Your task to perform on an android device: toggle show notifications on the lock screen Image 0: 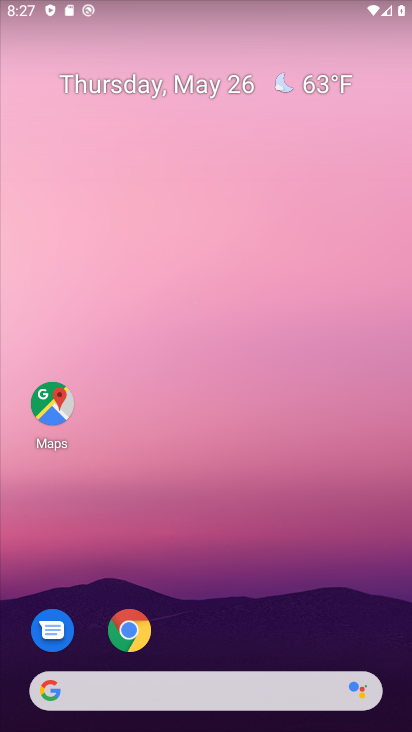
Step 0: drag from (248, 699) to (140, 0)
Your task to perform on an android device: toggle show notifications on the lock screen Image 1: 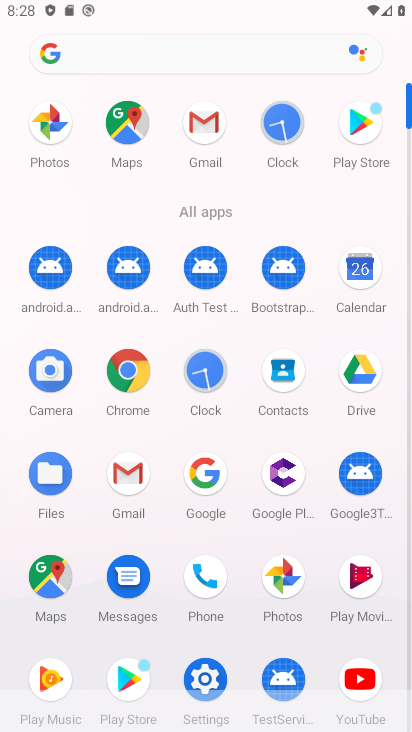
Step 1: click (202, 379)
Your task to perform on an android device: toggle show notifications on the lock screen Image 2: 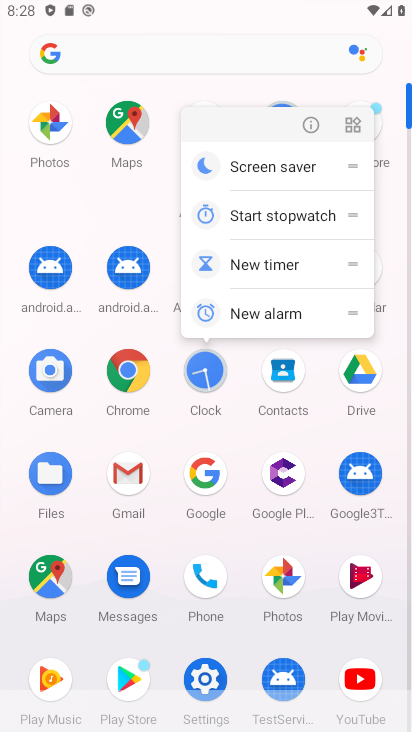
Step 2: click (204, 378)
Your task to perform on an android device: toggle show notifications on the lock screen Image 3: 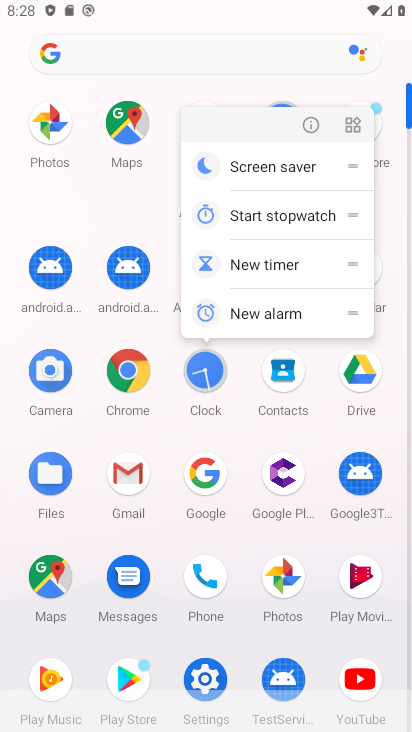
Step 3: click (205, 372)
Your task to perform on an android device: toggle show notifications on the lock screen Image 4: 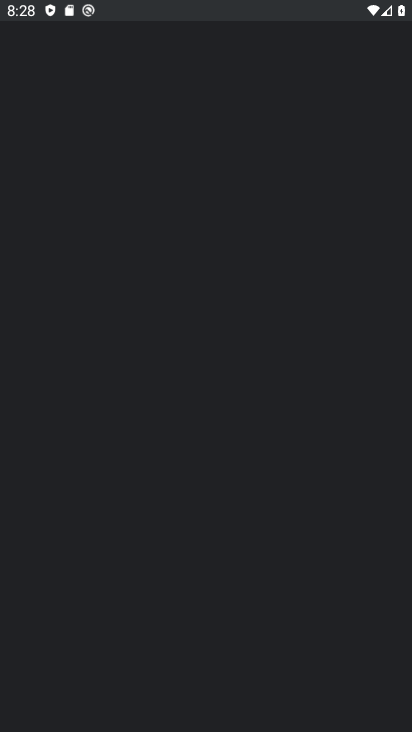
Step 4: click (212, 375)
Your task to perform on an android device: toggle show notifications on the lock screen Image 5: 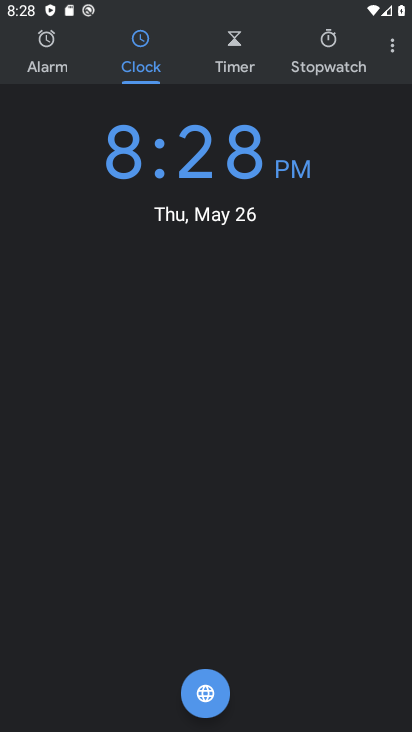
Step 5: press back button
Your task to perform on an android device: toggle show notifications on the lock screen Image 6: 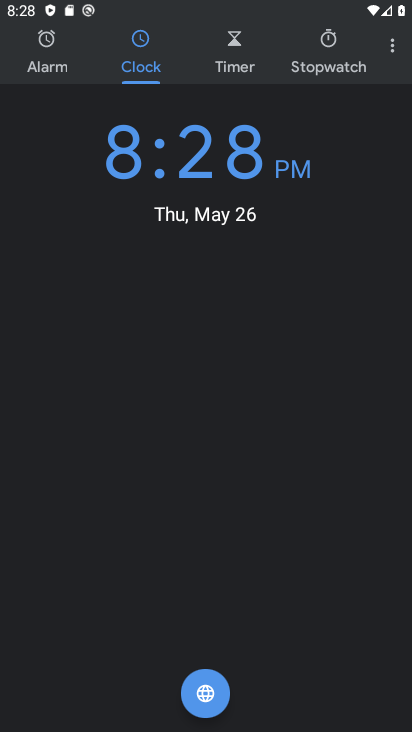
Step 6: press back button
Your task to perform on an android device: toggle show notifications on the lock screen Image 7: 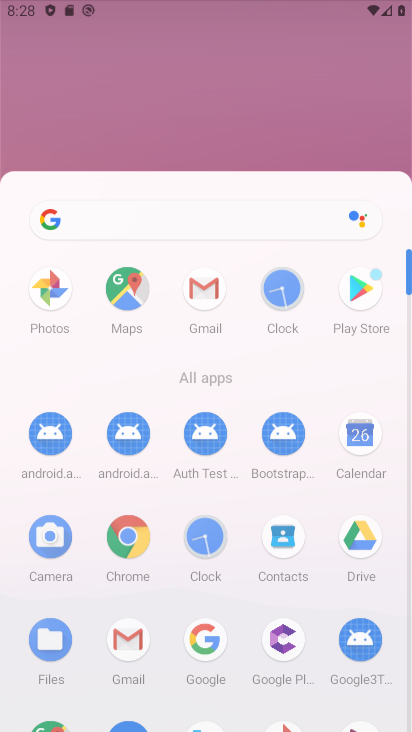
Step 7: press back button
Your task to perform on an android device: toggle show notifications on the lock screen Image 8: 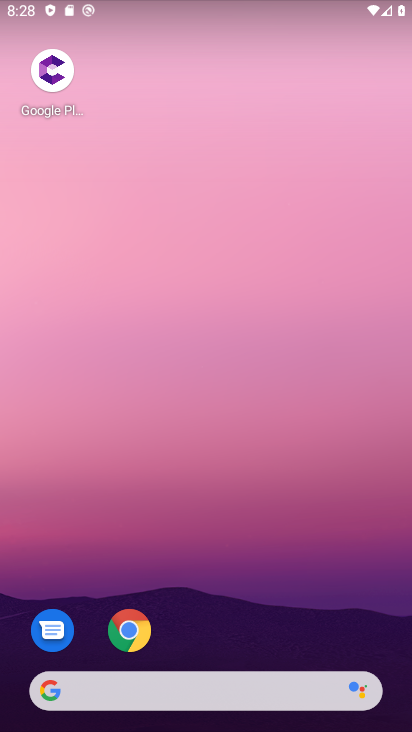
Step 8: press home button
Your task to perform on an android device: toggle show notifications on the lock screen Image 9: 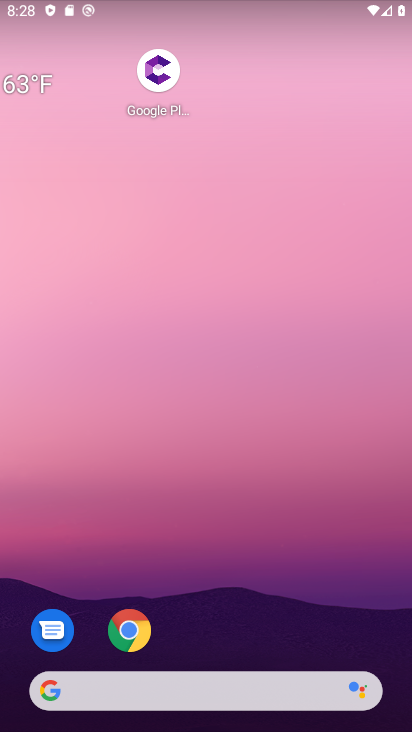
Step 9: press home button
Your task to perform on an android device: toggle show notifications on the lock screen Image 10: 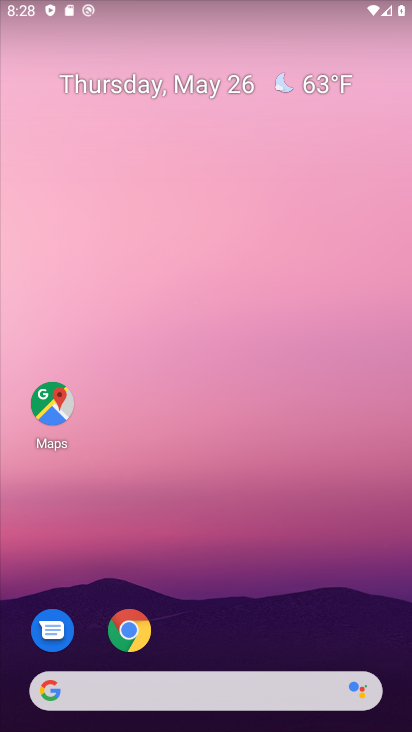
Step 10: press home button
Your task to perform on an android device: toggle show notifications on the lock screen Image 11: 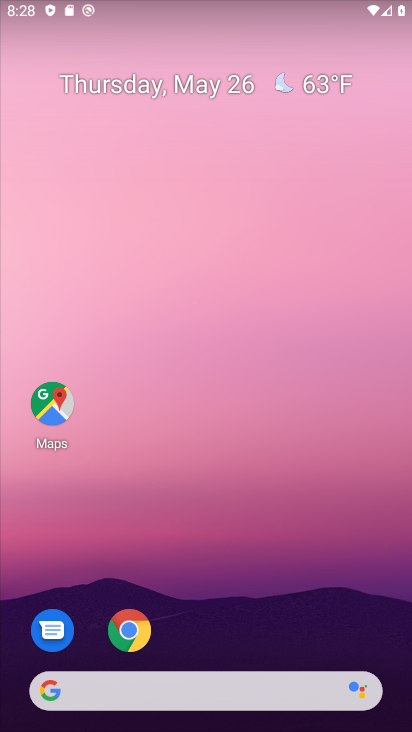
Step 11: click (152, 34)
Your task to perform on an android device: toggle show notifications on the lock screen Image 12: 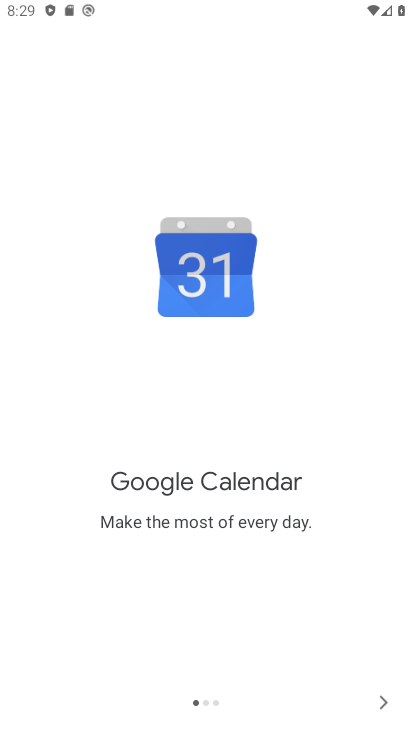
Step 12: click (388, 704)
Your task to perform on an android device: toggle show notifications on the lock screen Image 13: 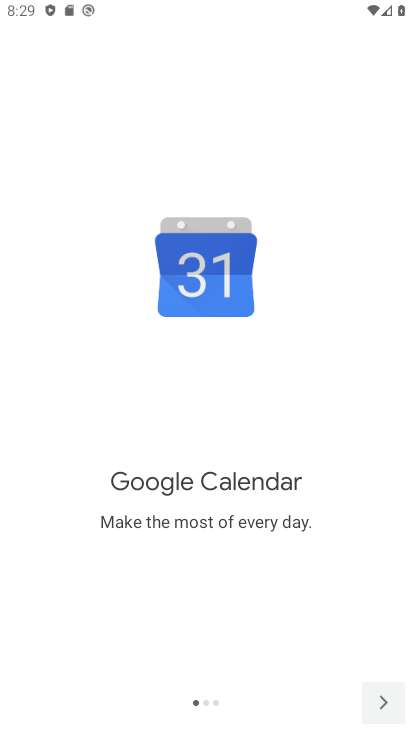
Step 13: click (388, 704)
Your task to perform on an android device: toggle show notifications on the lock screen Image 14: 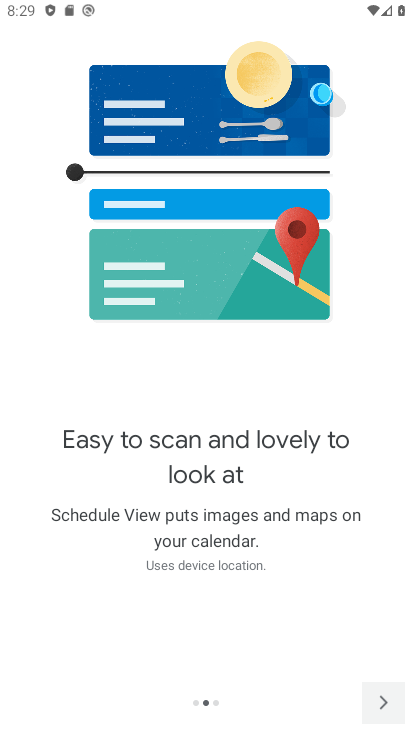
Step 14: click (389, 703)
Your task to perform on an android device: toggle show notifications on the lock screen Image 15: 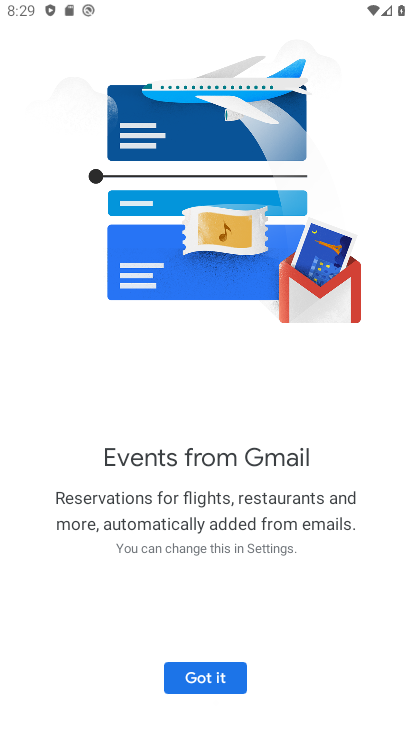
Step 15: click (389, 703)
Your task to perform on an android device: toggle show notifications on the lock screen Image 16: 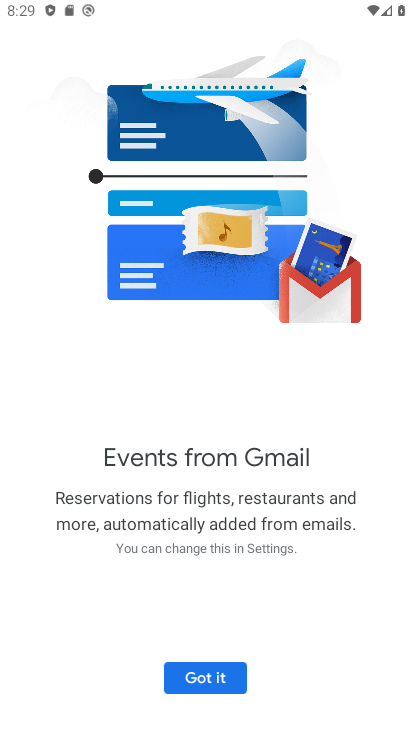
Step 16: click (389, 703)
Your task to perform on an android device: toggle show notifications on the lock screen Image 17: 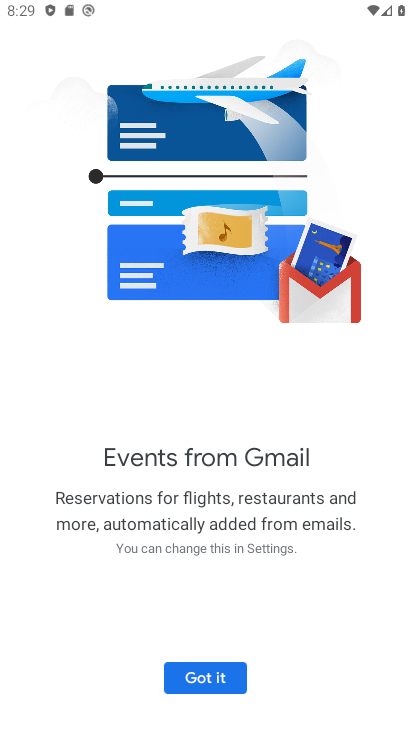
Step 17: click (382, 697)
Your task to perform on an android device: toggle show notifications on the lock screen Image 18: 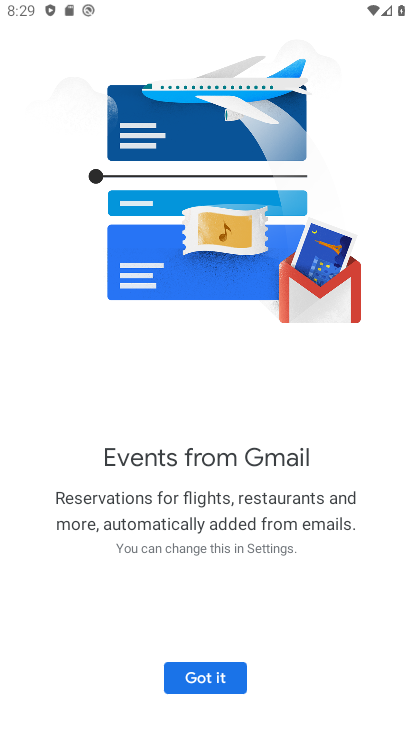
Step 18: click (194, 680)
Your task to perform on an android device: toggle show notifications on the lock screen Image 19: 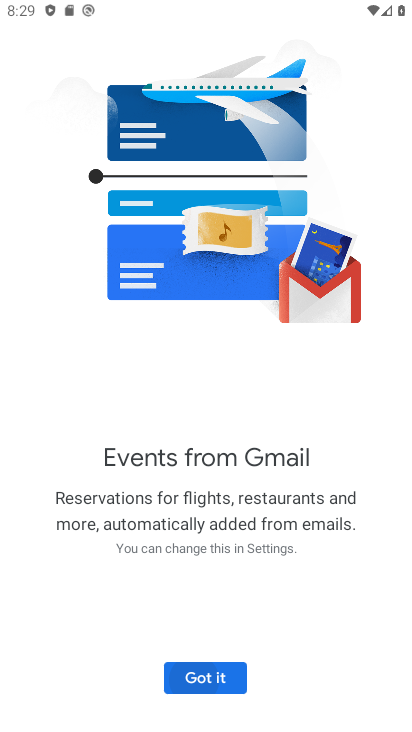
Step 19: click (193, 676)
Your task to perform on an android device: toggle show notifications on the lock screen Image 20: 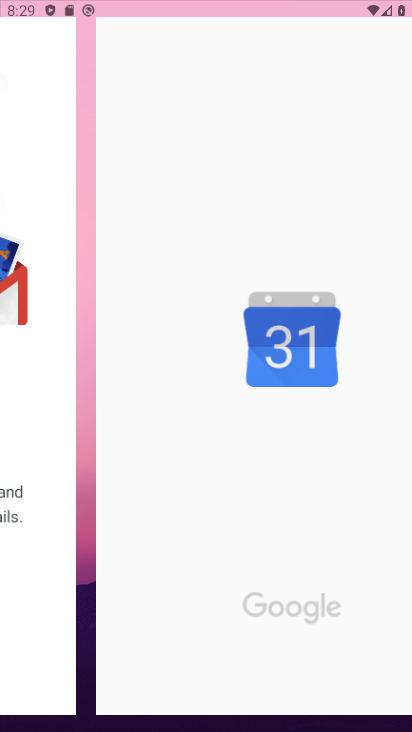
Step 20: click (220, 684)
Your task to perform on an android device: toggle show notifications on the lock screen Image 21: 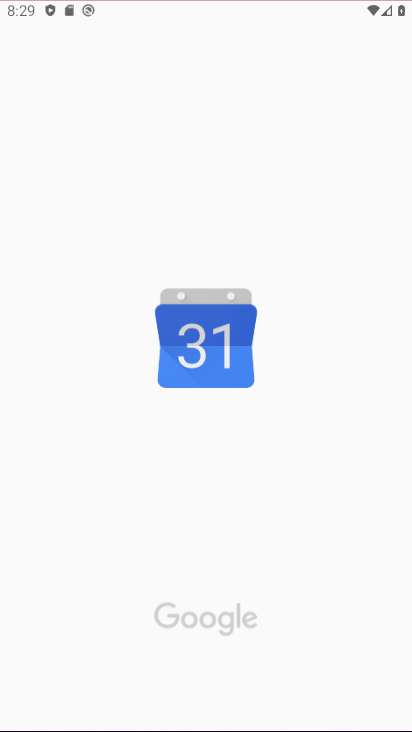
Step 21: click (223, 684)
Your task to perform on an android device: toggle show notifications on the lock screen Image 22: 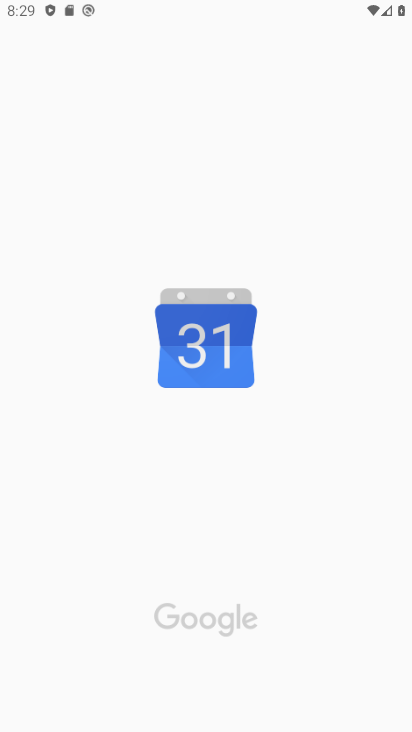
Step 22: click (223, 683)
Your task to perform on an android device: toggle show notifications on the lock screen Image 23: 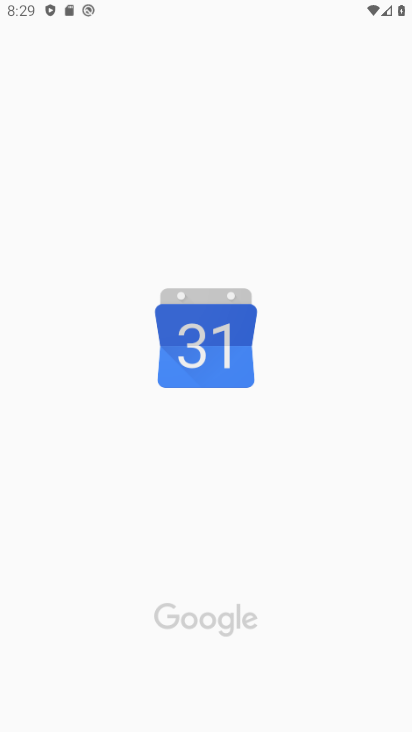
Step 23: click (223, 678)
Your task to perform on an android device: toggle show notifications on the lock screen Image 24: 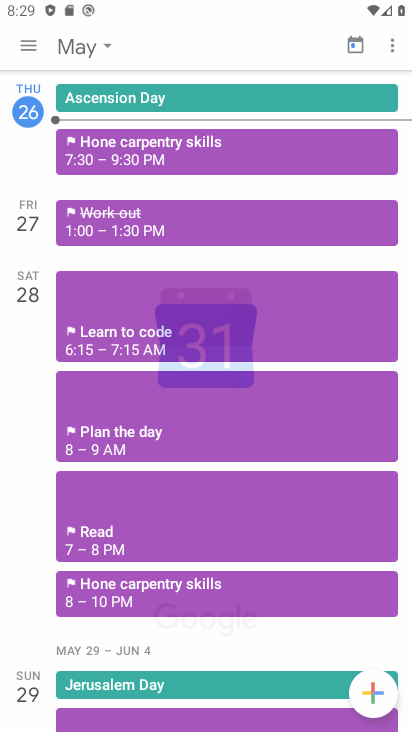
Step 24: click (223, 677)
Your task to perform on an android device: toggle show notifications on the lock screen Image 25: 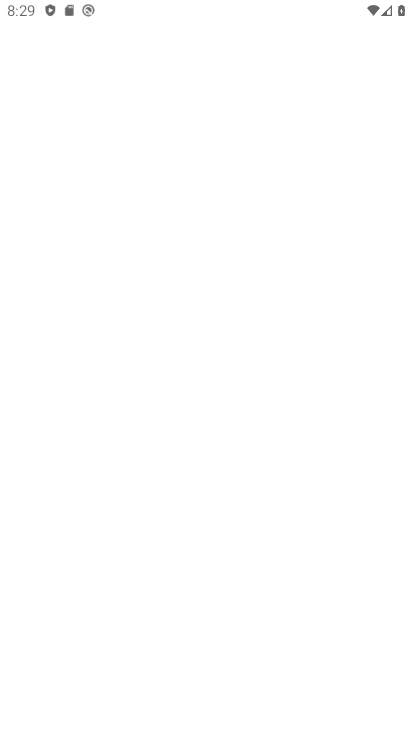
Step 25: press home button
Your task to perform on an android device: toggle show notifications on the lock screen Image 26: 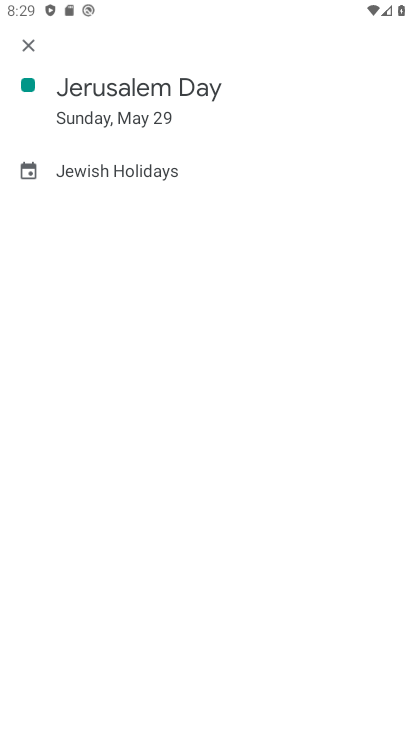
Step 26: press home button
Your task to perform on an android device: toggle show notifications on the lock screen Image 27: 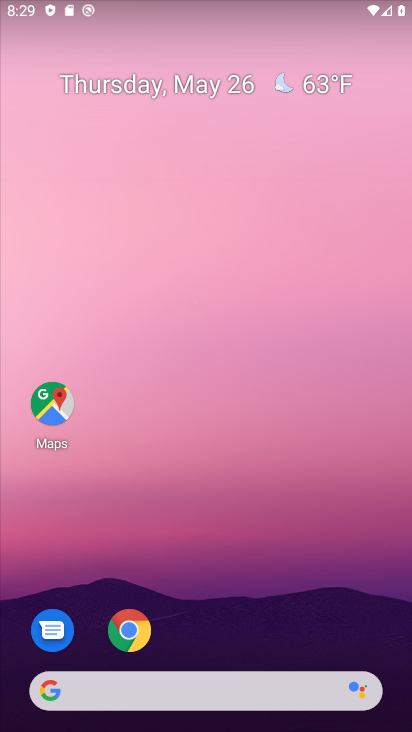
Step 27: drag from (234, 643) to (125, 125)
Your task to perform on an android device: toggle show notifications on the lock screen Image 28: 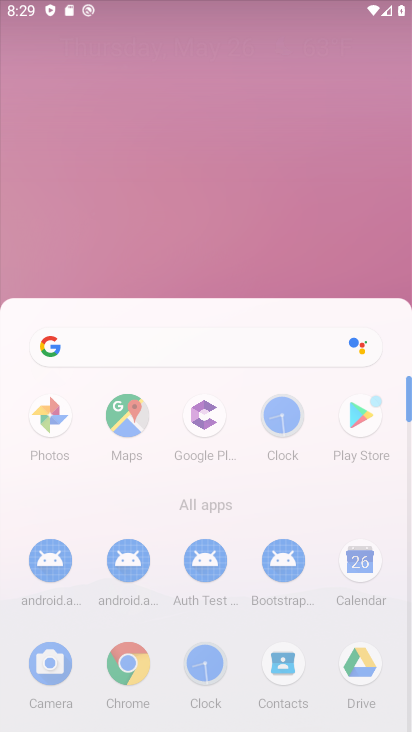
Step 28: drag from (346, 621) to (254, 101)
Your task to perform on an android device: toggle show notifications on the lock screen Image 29: 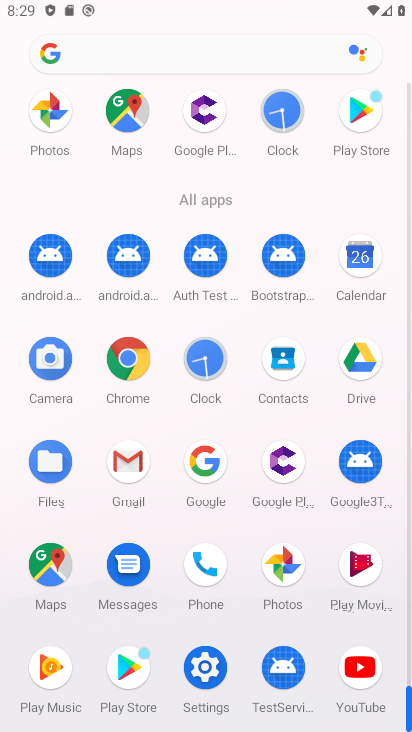
Step 29: click (210, 663)
Your task to perform on an android device: toggle show notifications on the lock screen Image 30: 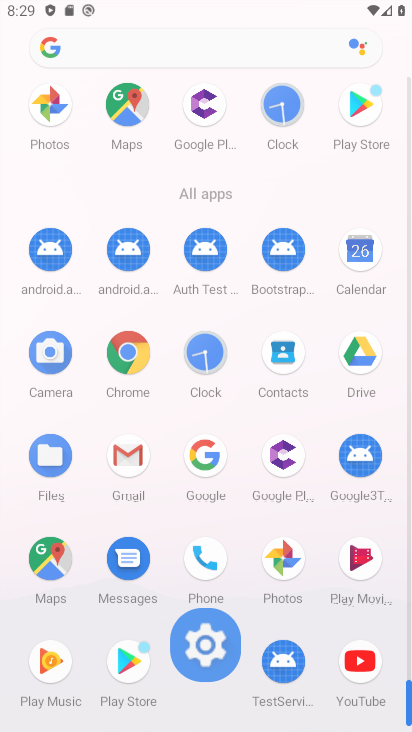
Step 30: click (190, 672)
Your task to perform on an android device: toggle show notifications on the lock screen Image 31: 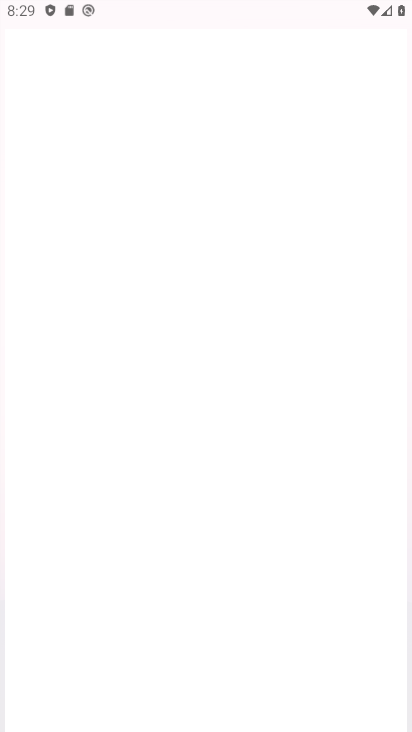
Step 31: click (191, 673)
Your task to perform on an android device: toggle show notifications on the lock screen Image 32: 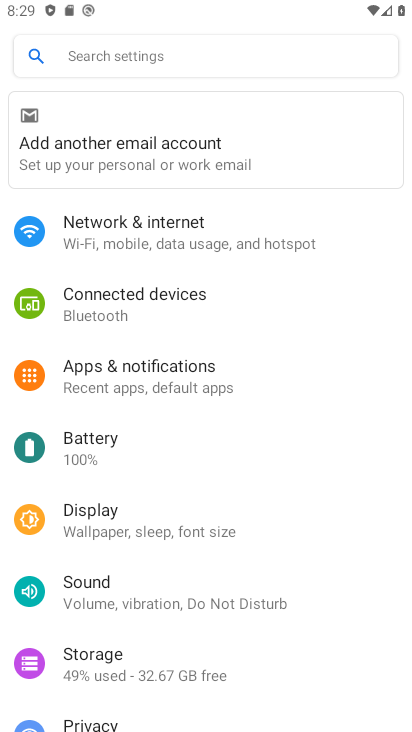
Step 32: click (121, 378)
Your task to perform on an android device: toggle show notifications on the lock screen Image 33: 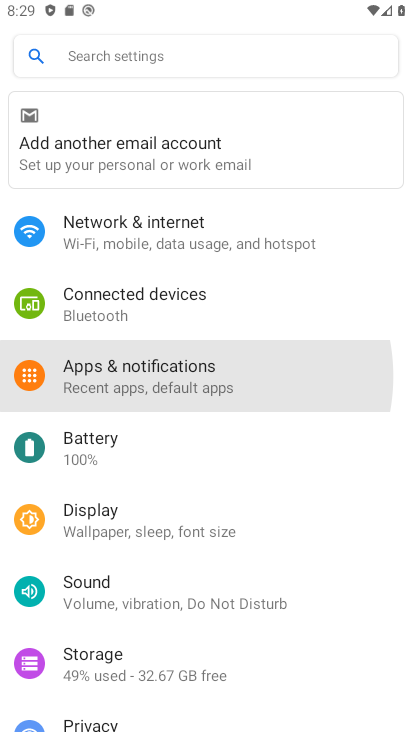
Step 33: click (123, 378)
Your task to perform on an android device: toggle show notifications on the lock screen Image 34: 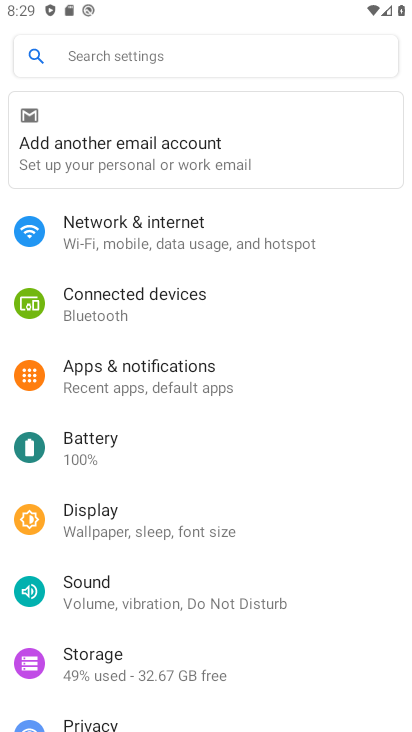
Step 34: click (124, 378)
Your task to perform on an android device: toggle show notifications on the lock screen Image 35: 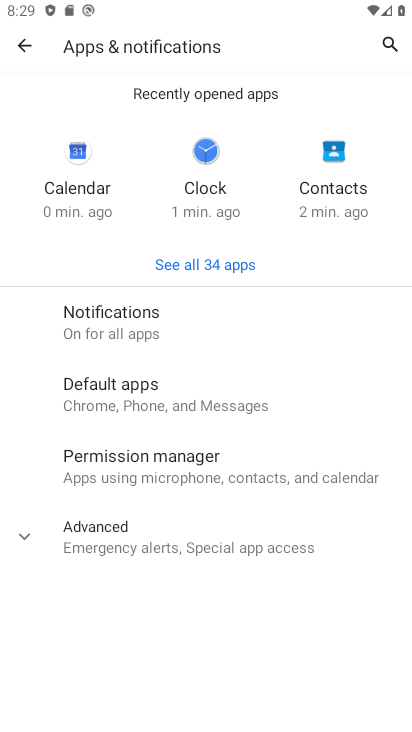
Step 35: click (103, 324)
Your task to perform on an android device: toggle show notifications on the lock screen Image 36: 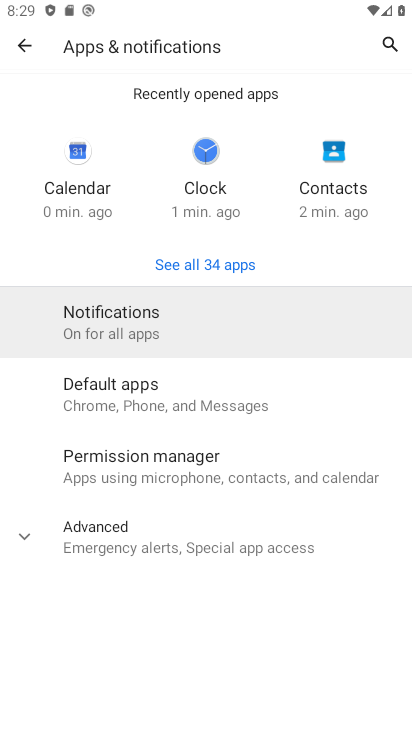
Step 36: click (104, 324)
Your task to perform on an android device: toggle show notifications on the lock screen Image 37: 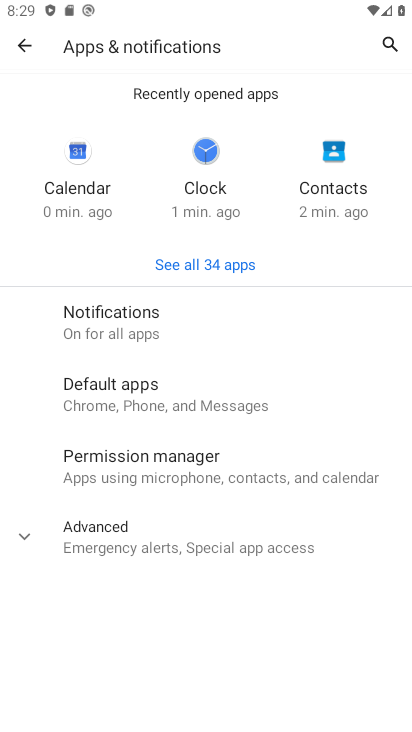
Step 37: click (109, 322)
Your task to perform on an android device: toggle show notifications on the lock screen Image 38: 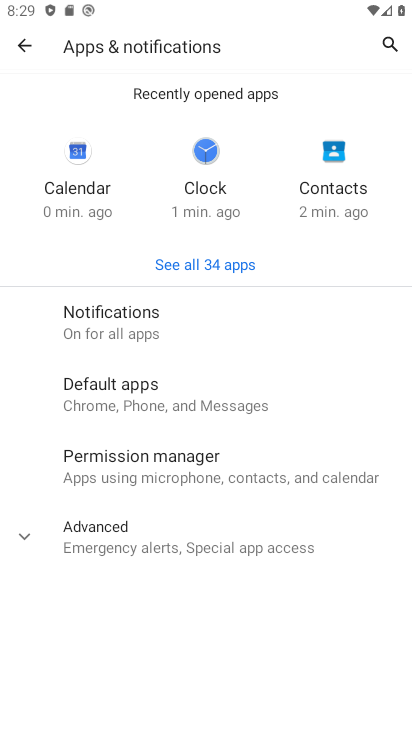
Step 38: click (111, 320)
Your task to perform on an android device: toggle show notifications on the lock screen Image 39: 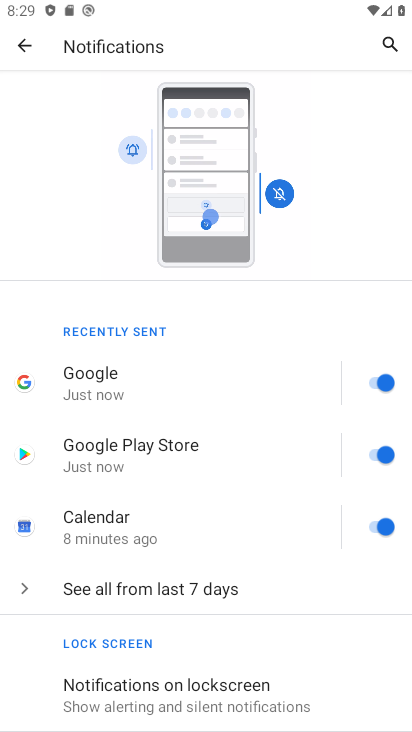
Step 39: drag from (193, 479) to (190, 143)
Your task to perform on an android device: toggle show notifications on the lock screen Image 40: 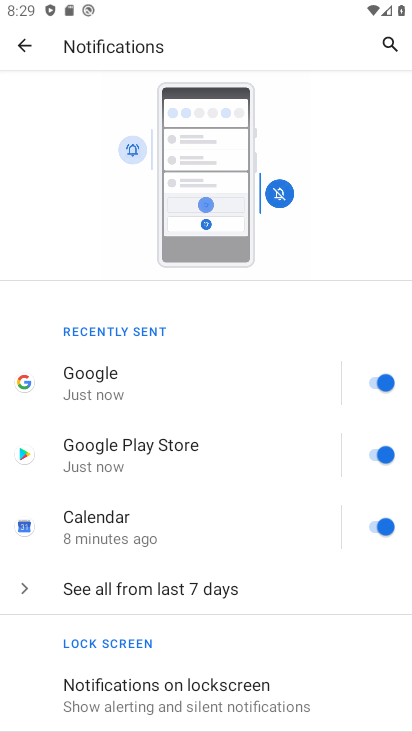
Step 40: drag from (260, 442) to (250, 230)
Your task to perform on an android device: toggle show notifications on the lock screen Image 41: 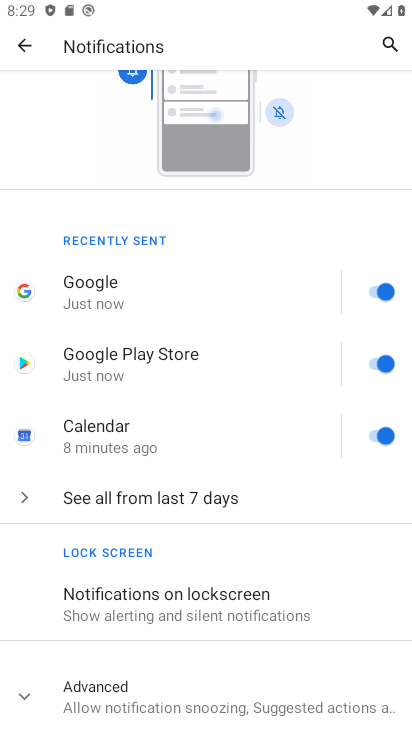
Step 41: click (184, 599)
Your task to perform on an android device: toggle show notifications on the lock screen Image 42: 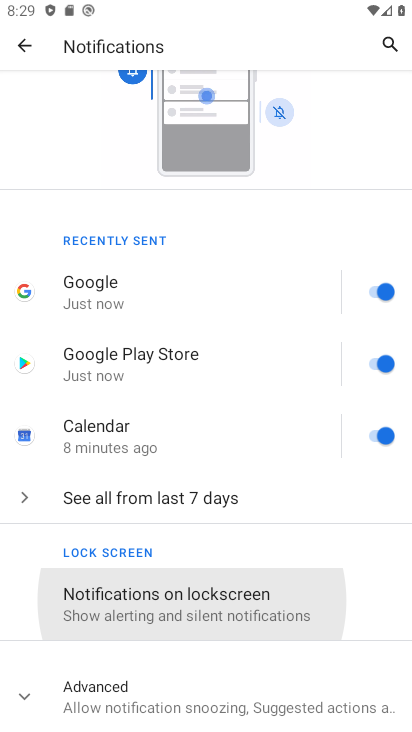
Step 42: click (184, 599)
Your task to perform on an android device: toggle show notifications on the lock screen Image 43: 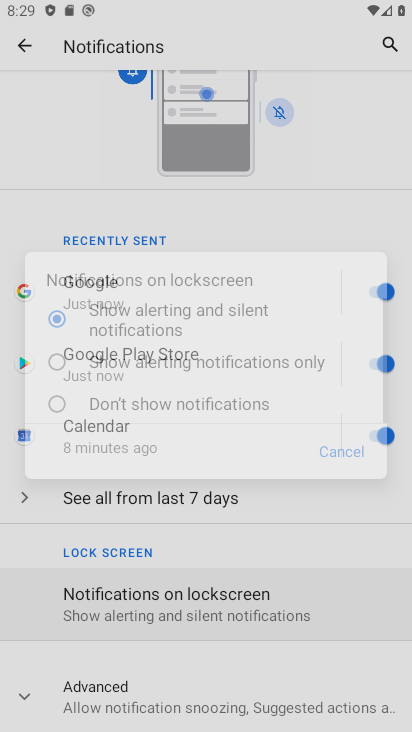
Step 43: click (184, 599)
Your task to perform on an android device: toggle show notifications on the lock screen Image 44: 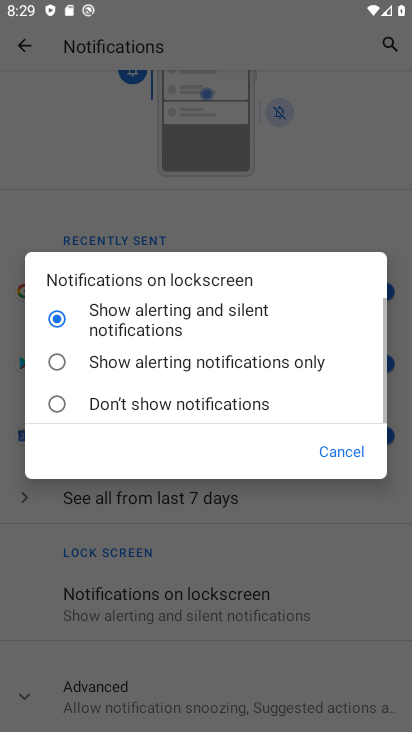
Step 44: click (184, 599)
Your task to perform on an android device: toggle show notifications on the lock screen Image 45: 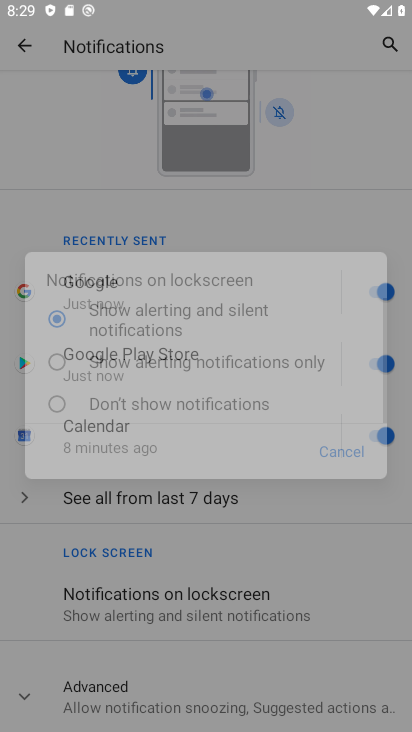
Step 45: click (184, 599)
Your task to perform on an android device: toggle show notifications on the lock screen Image 46: 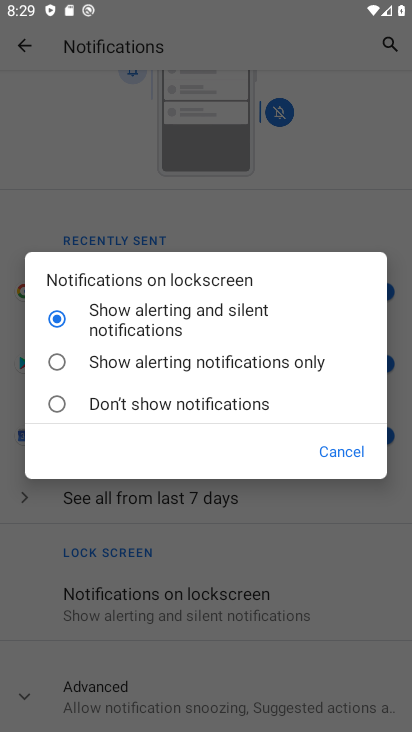
Step 46: click (60, 357)
Your task to perform on an android device: toggle show notifications on the lock screen Image 47: 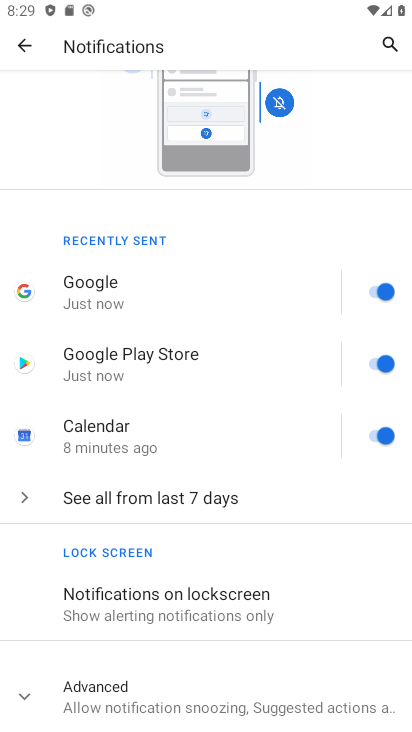
Step 47: task complete